Your task to perform on an android device: Open battery settings Image 0: 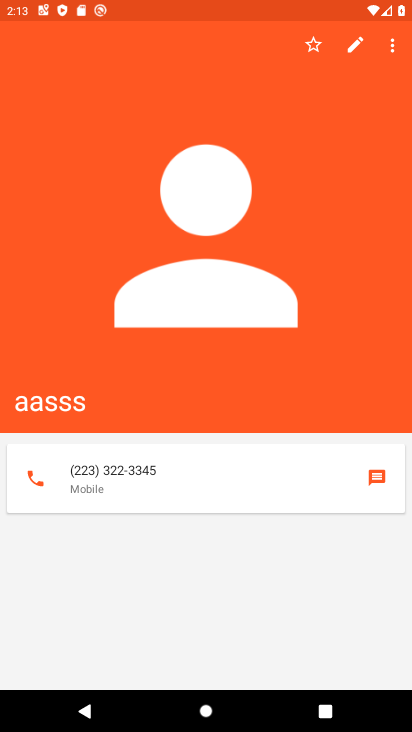
Step 0: press home button
Your task to perform on an android device: Open battery settings Image 1: 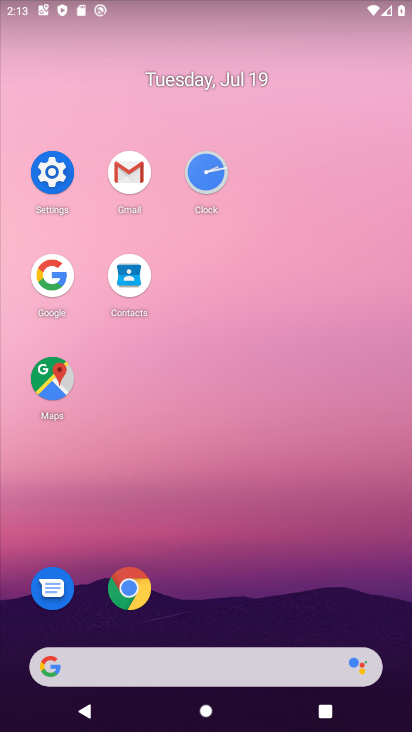
Step 1: click (36, 174)
Your task to perform on an android device: Open battery settings Image 2: 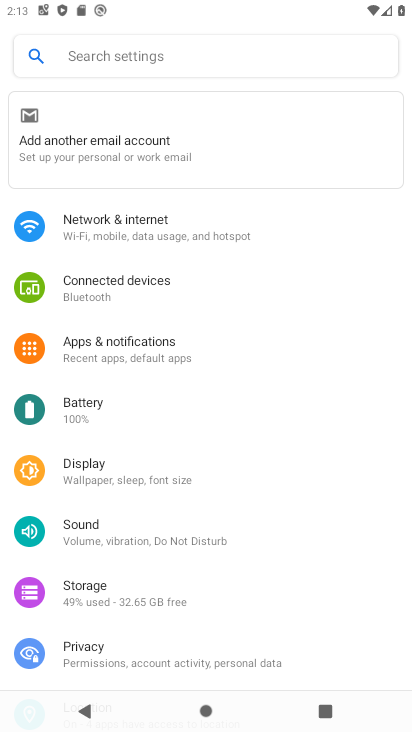
Step 2: click (146, 412)
Your task to perform on an android device: Open battery settings Image 3: 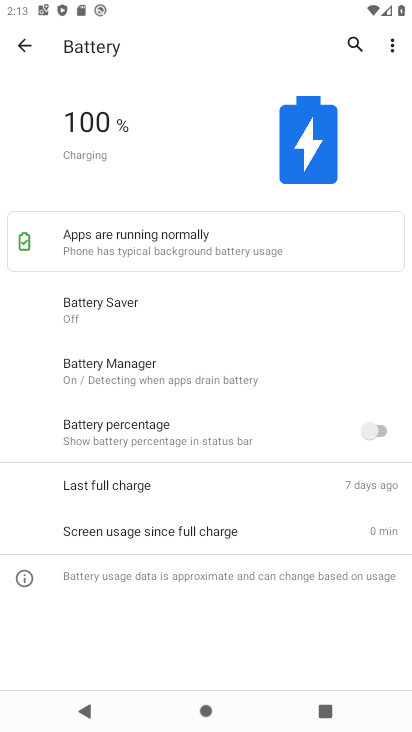
Step 3: task complete